Your task to perform on an android device: Go to internet settings Image 0: 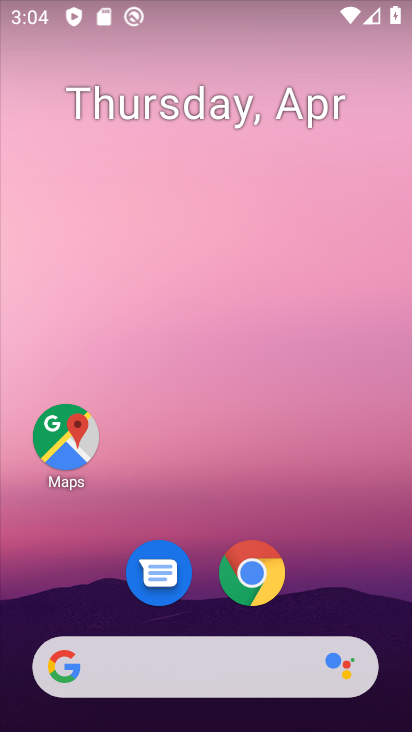
Step 0: drag from (353, 603) to (316, 116)
Your task to perform on an android device: Go to internet settings Image 1: 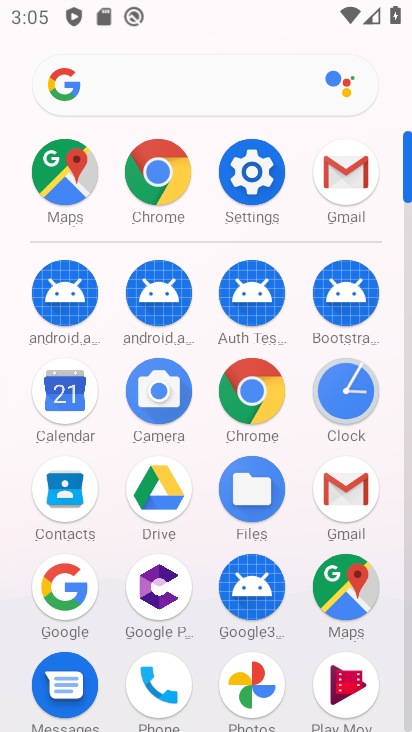
Step 1: click (244, 191)
Your task to perform on an android device: Go to internet settings Image 2: 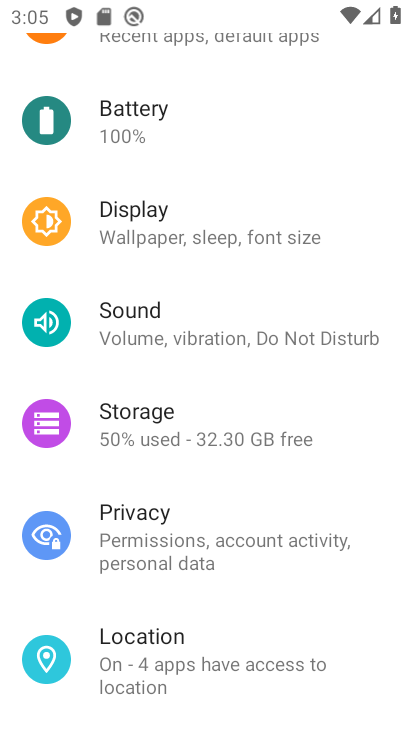
Step 2: drag from (228, 136) to (299, 588)
Your task to perform on an android device: Go to internet settings Image 3: 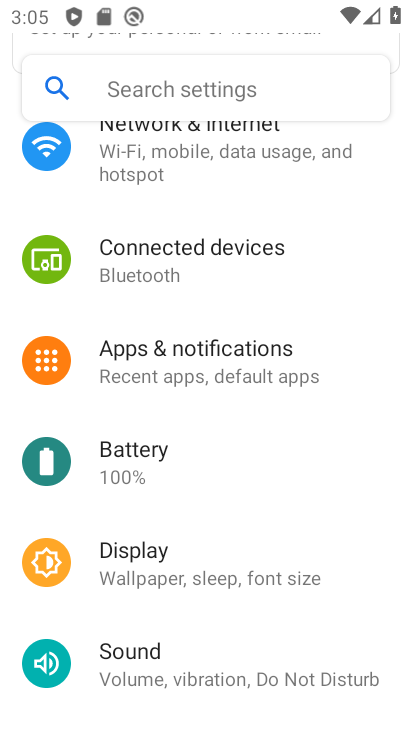
Step 3: drag from (190, 201) to (206, 525)
Your task to perform on an android device: Go to internet settings Image 4: 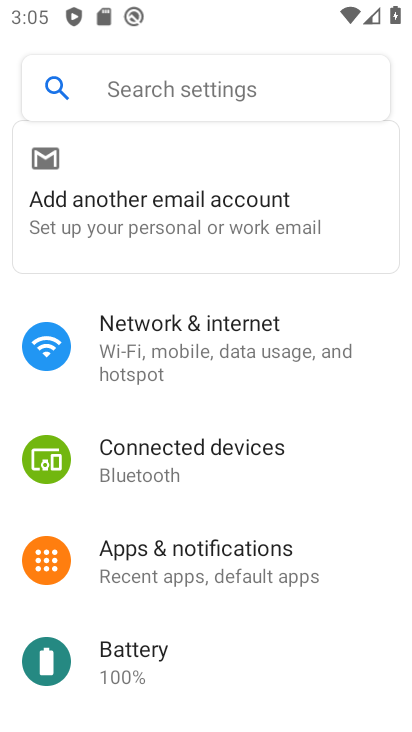
Step 4: click (195, 379)
Your task to perform on an android device: Go to internet settings Image 5: 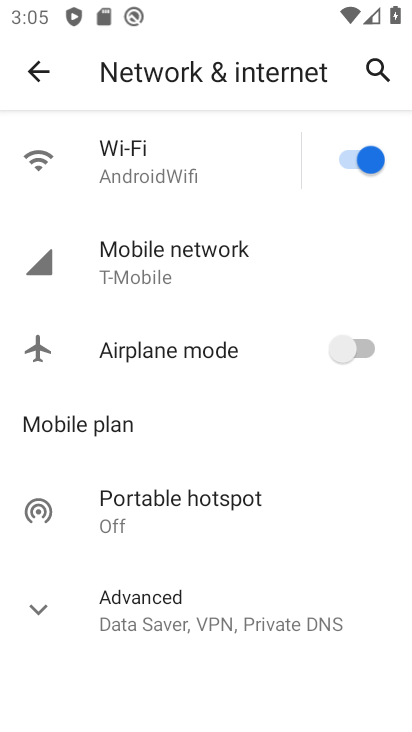
Step 5: task complete